Your task to perform on an android device: uninstall "LiveIn - Share Your Moment" Image 0: 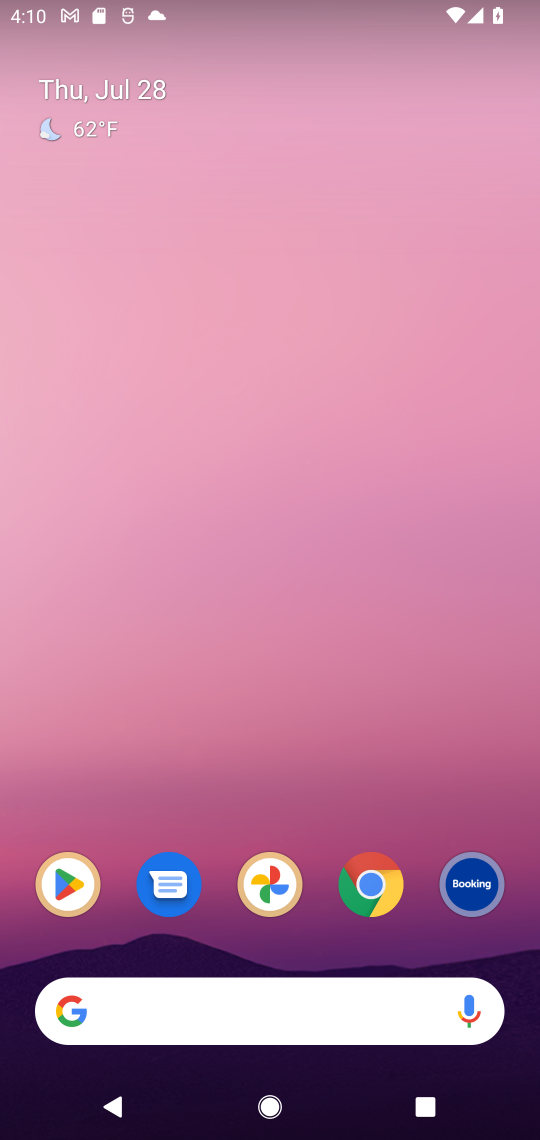
Step 0: click (52, 897)
Your task to perform on an android device: uninstall "LiveIn - Share Your Moment" Image 1: 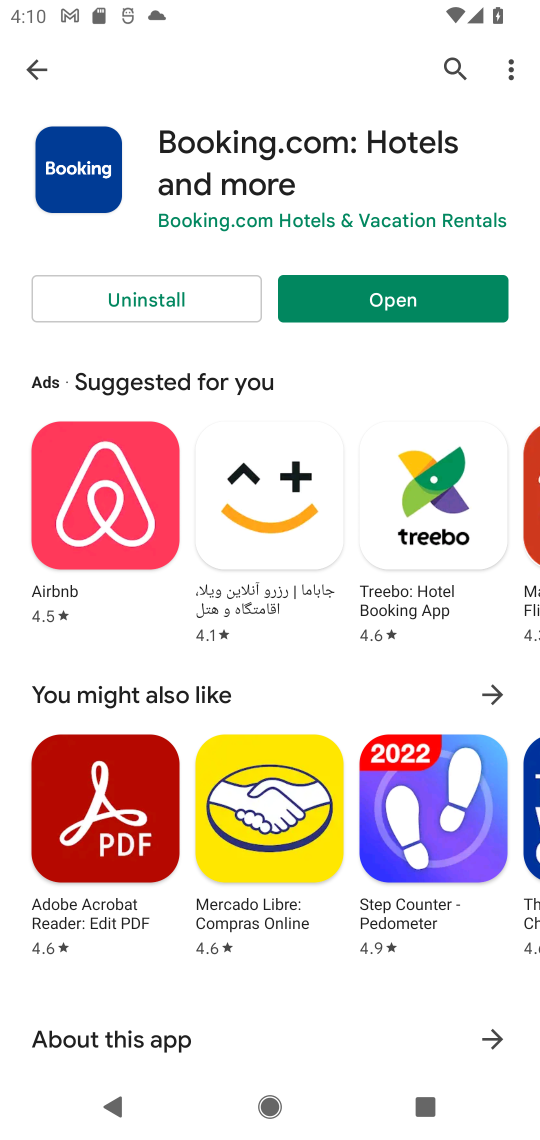
Step 1: click (453, 78)
Your task to perform on an android device: uninstall "LiveIn - Share Your Moment" Image 2: 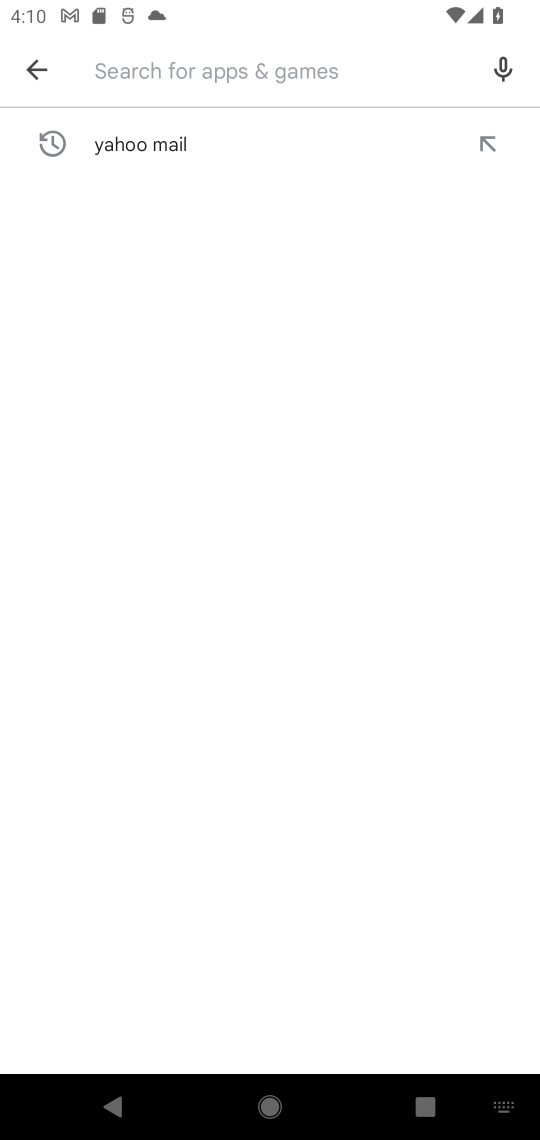
Step 2: type "LiveIn - Share Your Moment"
Your task to perform on an android device: uninstall "LiveIn - Share Your Moment" Image 3: 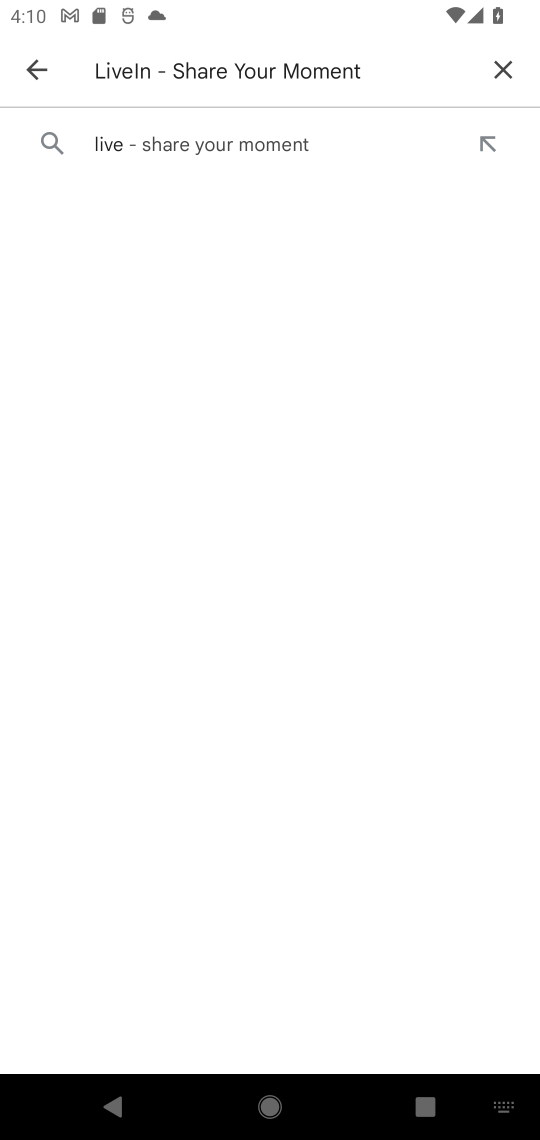
Step 3: click (251, 153)
Your task to perform on an android device: uninstall "LiveIn - Share Your Moment" Image 4: 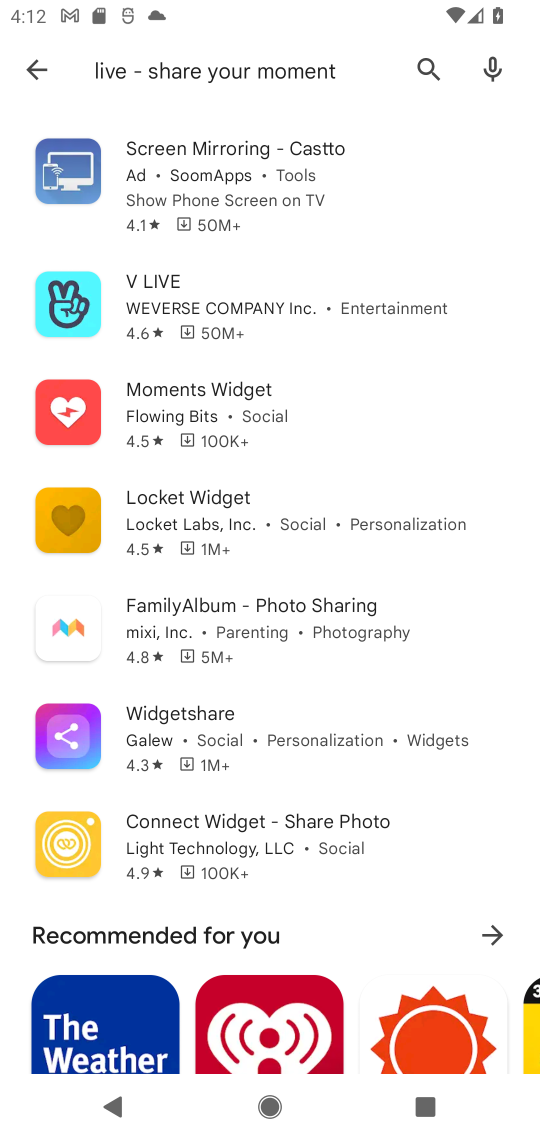
Step 4: task complete